Your task to perform on an android device: Open Android settings Image 0: 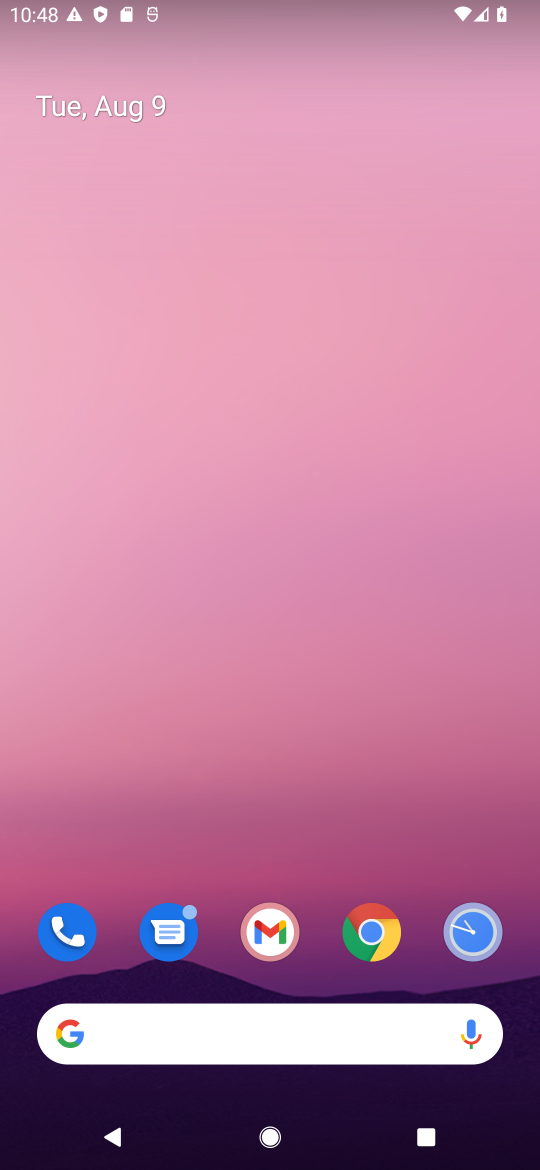
Step 0: drag from (289, 992) to (420, 0)
Your task to perform on an android device: Open Android settings Image 1: 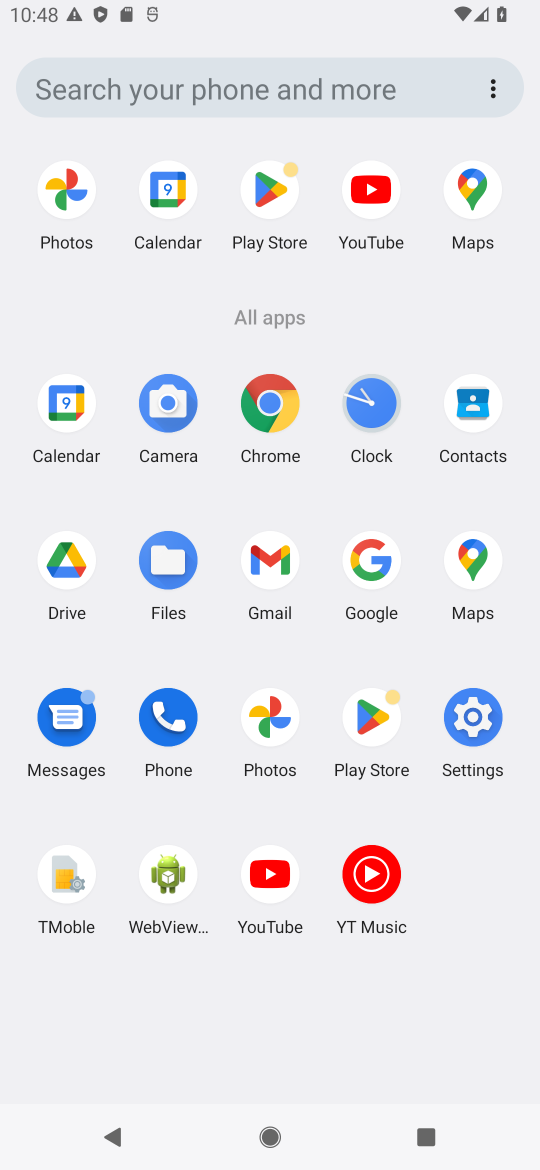
Step 1: click (474, 731)
Your task to perform on an android device: Open Android settings Image 2: 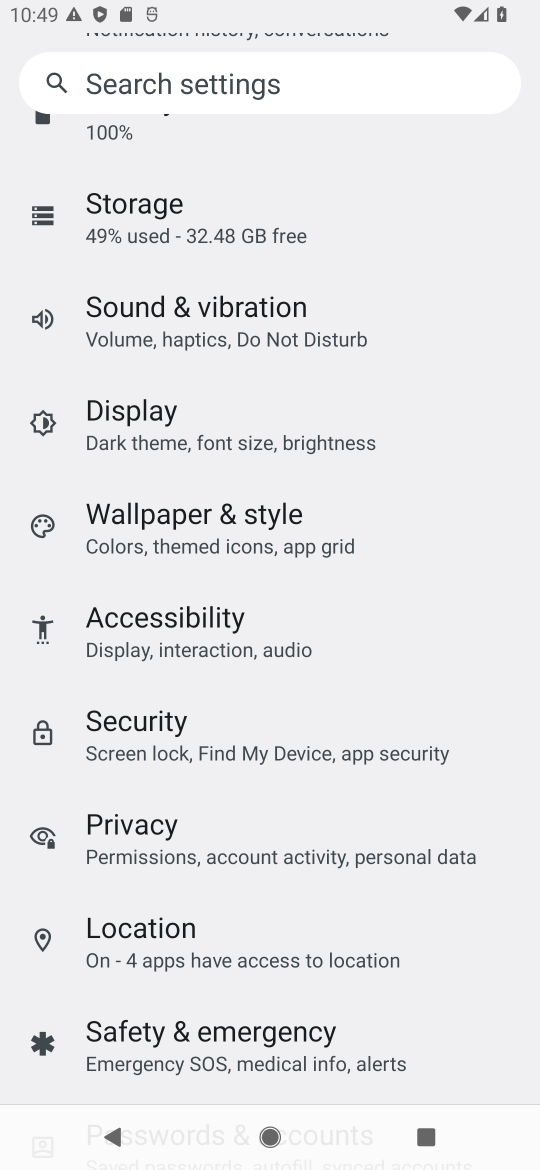
Step 2: drag from (231, 984) to (259, 474)
Your task to perform on an android device: Open Android settings Image 3: 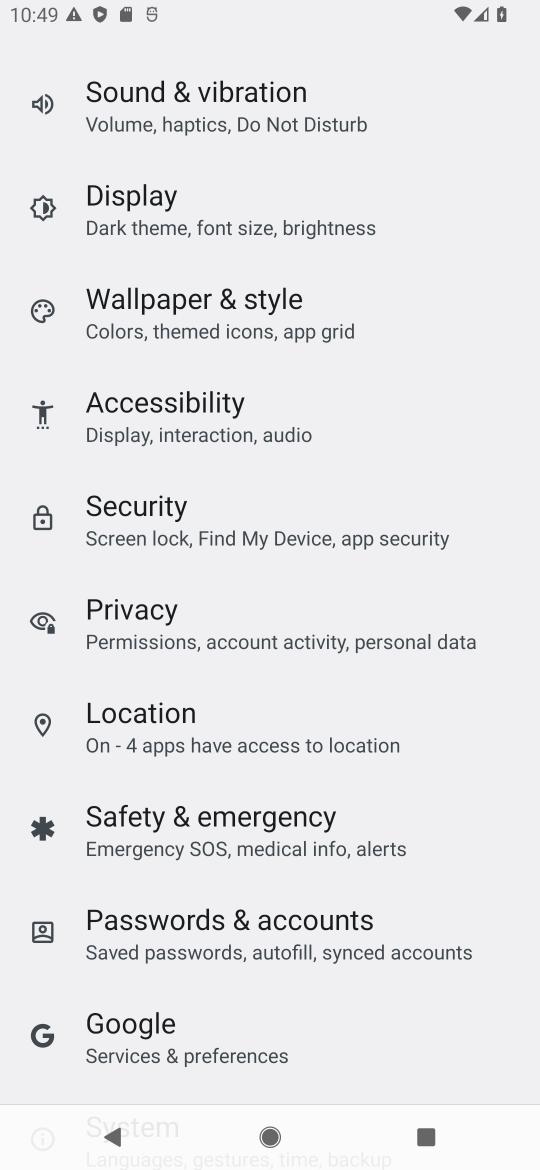
Step 3: drag from (209, 997) to (235, 604)
Your task to perform on an android device: Open Android settings Image 4: 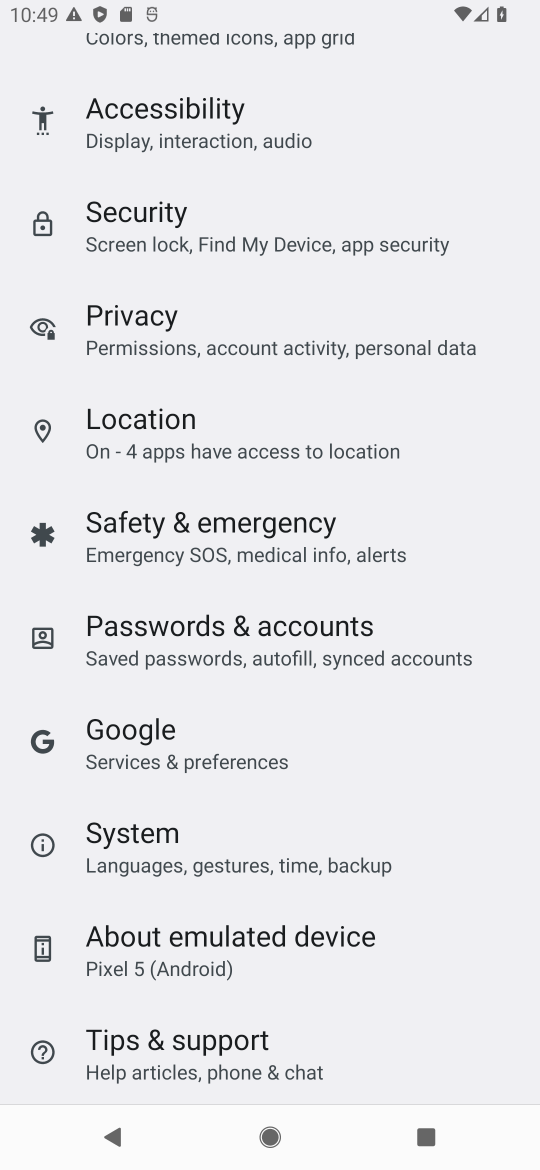
Step 4: click (186, 954)
Your task to perform on an android device: Open Android settings Image 5: 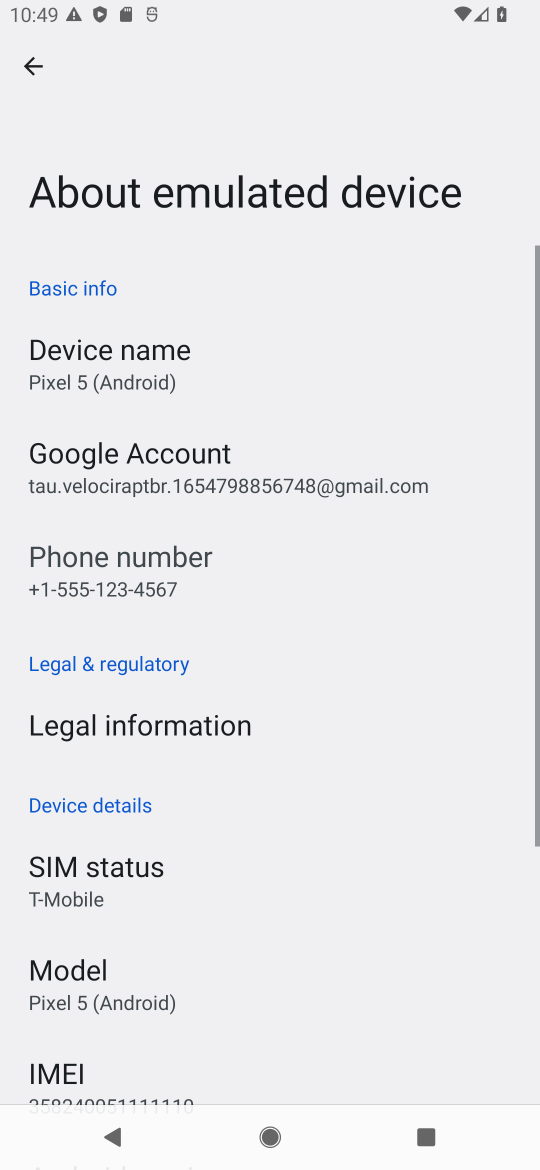
Step 5: task complete